Your task to perform on an android device: Search for dell alienware on walmart.com, select the first entry, and add it to the cart. Image 0: 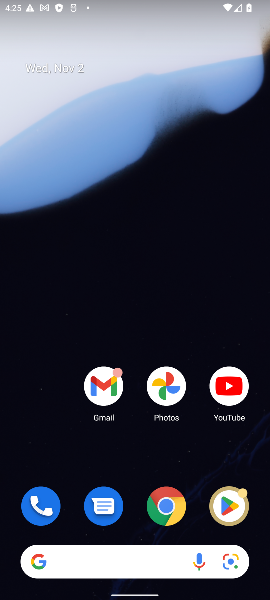
Step 0: click (165, 517)
Your task to perform on an android device: Search for dell alienware on walmart.com, select the first entry, and add it to the cart. Image 1: 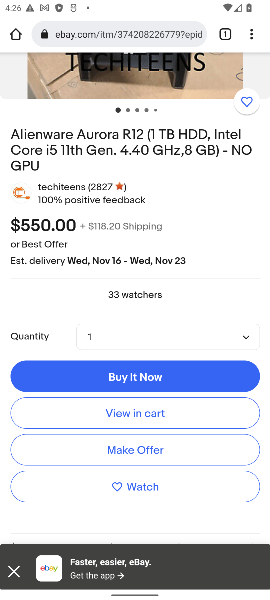
Step 1: click (120, 38)
Your task to perform on an android device: Search for dell alienware on walmart.com, select the first entry, and add it to the cart. Image 2: 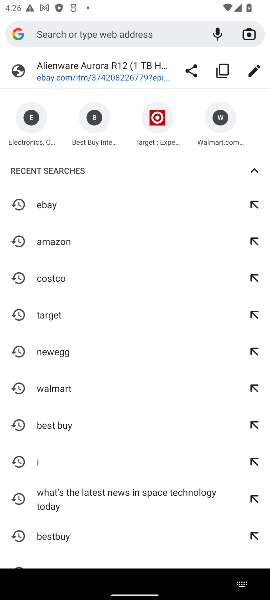
Step 2: type "dell alienware"
Your task to perform on an android device: Search for dell alienware on walmart.com, select the first entry, and add it to the cart. Image 3: 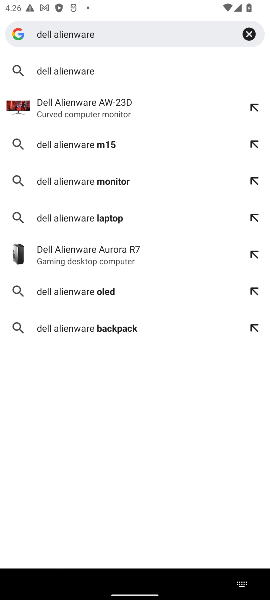
Step 3: click (159, 62)
Your task to perform on an android device: Search for dell alienware on walmart.com, select the first entry, and add it to the cart. Image 4: 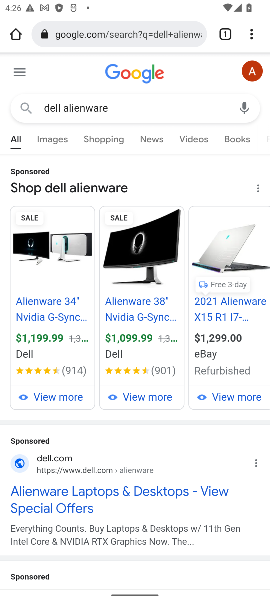
Step 4: click (159, 500)
Your task to perform on an android device: Search for dell alienware on walmart.com, select the first entry, and add it to the cart. Image 5: 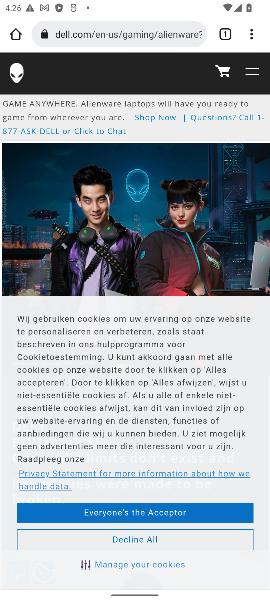
Step 5: drag from (205, 478) to (153, 145)
Your task to perform on an android device: Search for dell alienware on walmart.com, select the first entry, and add it to the cart. Image 6: 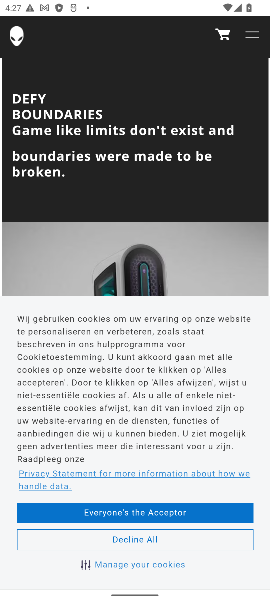
Step 6: drag from (179, 532) to (141, 228)
Your task to perform on an android device: Search for dell alienware on walmart.com, select the first entry, and add it to the cart. Image 7: 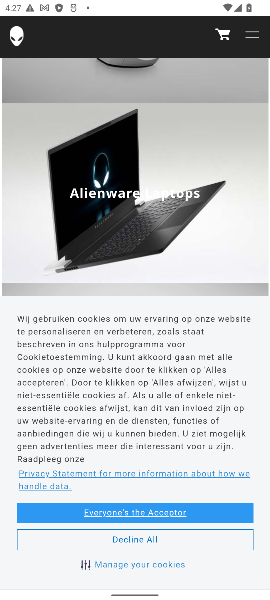
Step 7: click (155, 515)
Your task to perform on an android device: Search for dell alienware on walmart.com, select the first entry, and add it to the cart. Image 8: 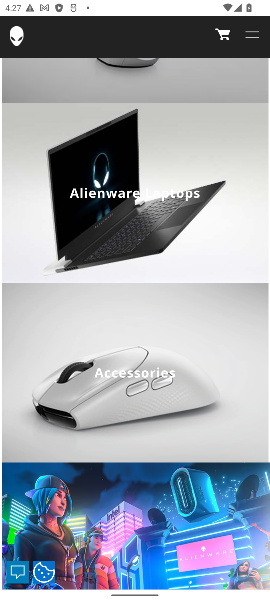
Step 8: task complete